Your task to perform on an android device: turn on javascript in the chrome app Image 0: 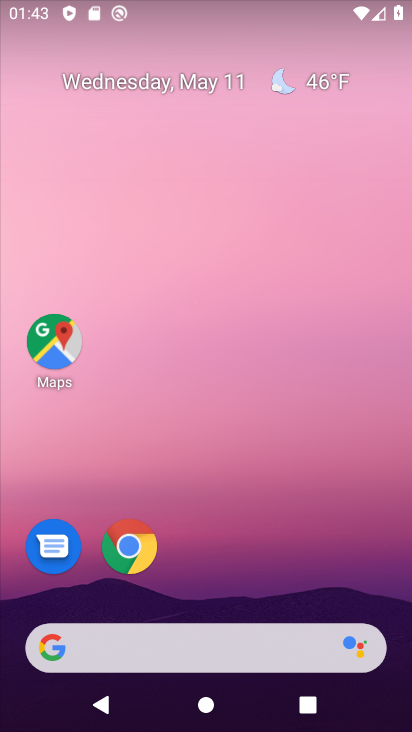
Step 0: drag from (175, 584) to (269, 265)
Your task to perform on an android device: turn on javascript in the chrome app Image 1: 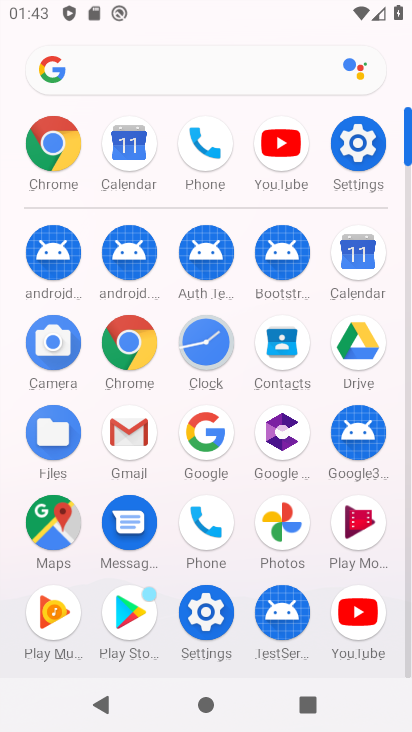
Step 1: click (130, 343)
Your task to perform on an android device: turn on javascript in the chrome app Image 2: 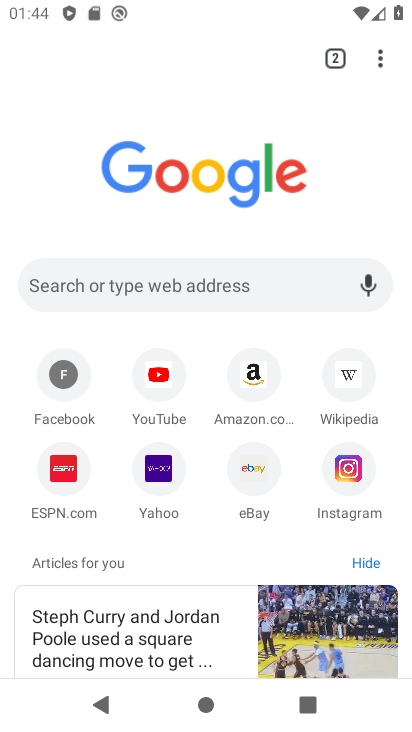
Step 2: drag from (385, 56) to (216, 483)
Your task to perform on an android device: turn on javascript in the chrome app Image 3: 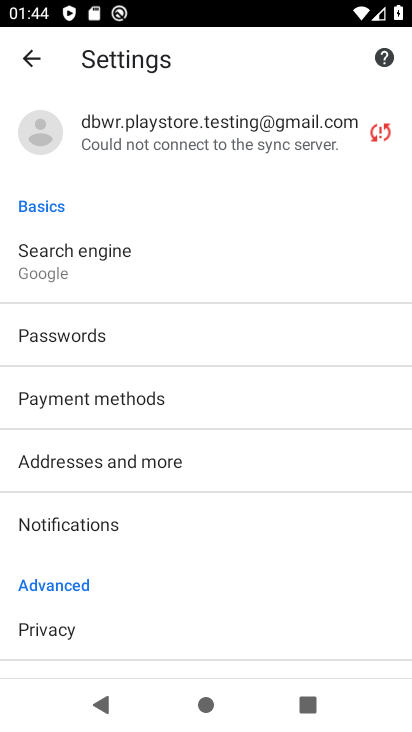
Step 3: drag from (194, 638) to (288, 219)
Your task to perform on an android device: turn on javascript in the chrome app Image 4: 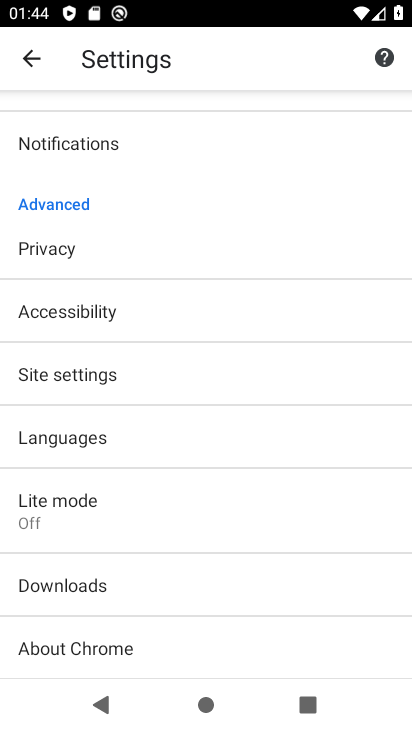
Step 4: click (126, 381)
Your task to perform on an android device: turn on javascript in the chrome app Image 5: 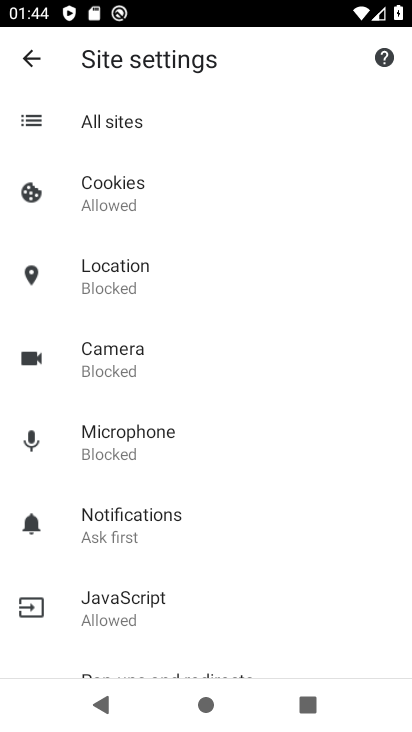
Step 5: drag from (167, 564) to (232, 311)
Your task to perform on an android device: turn on javascript in the chrome app Image 6: 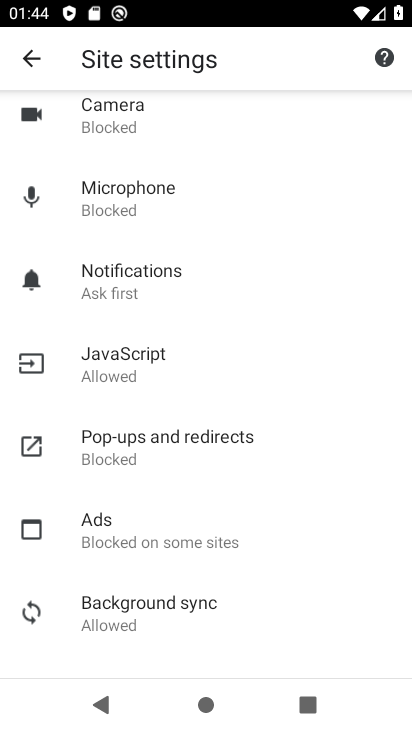
Step 6: click (128, 360)
Your task to perform on an android device: turn on javascript in the chrome app Image 7: 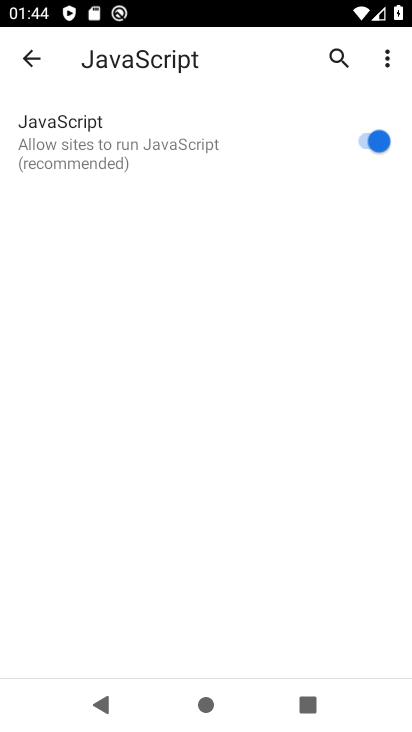
Step 7: task complete